Your task to perform on an android device: visit the assistant section in the google photos Image 0: 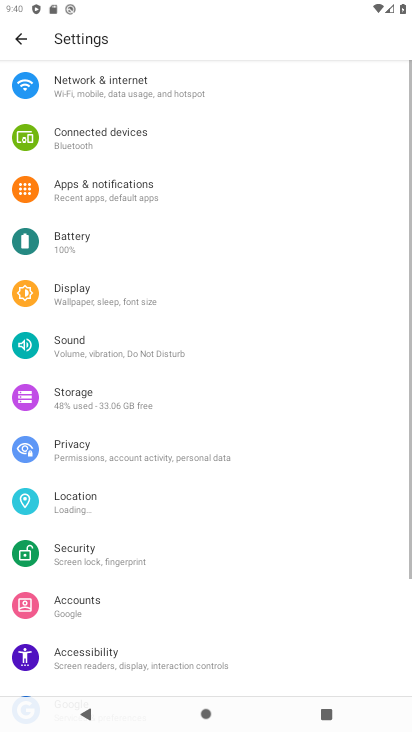
Step 0: press home button
Your task to perform on an android device: visit the assistant section in the google photos Image 1: 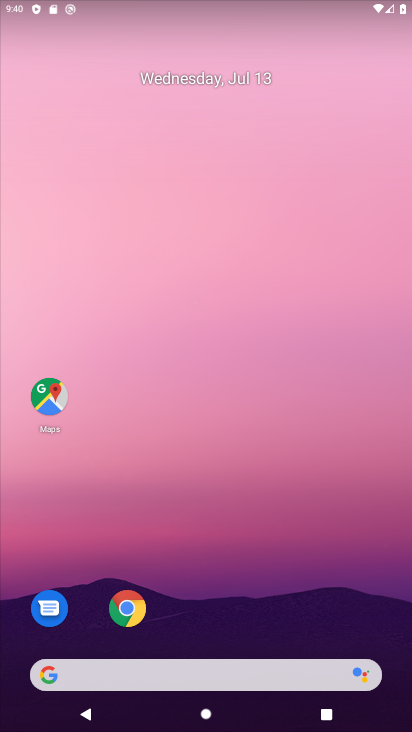
Step 1: drag from (210, 632) to (359, 2)
Your task to perform on an android device: visit the assistant section in the google photos Image 2: 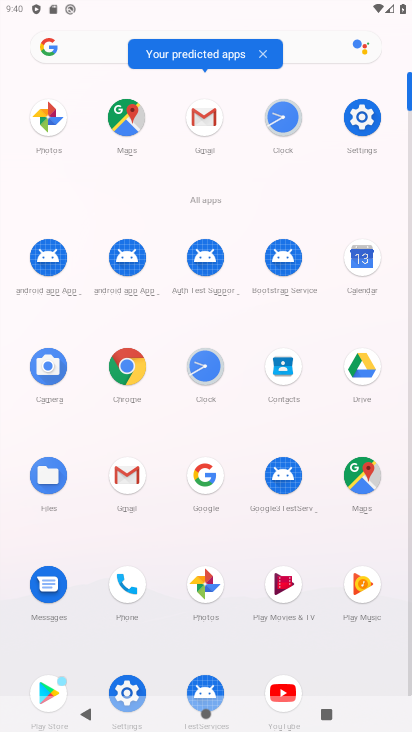
Step 2: click (202, 593)
Your task to perform on an android device: visit the assistant section in the google photos Image 3: 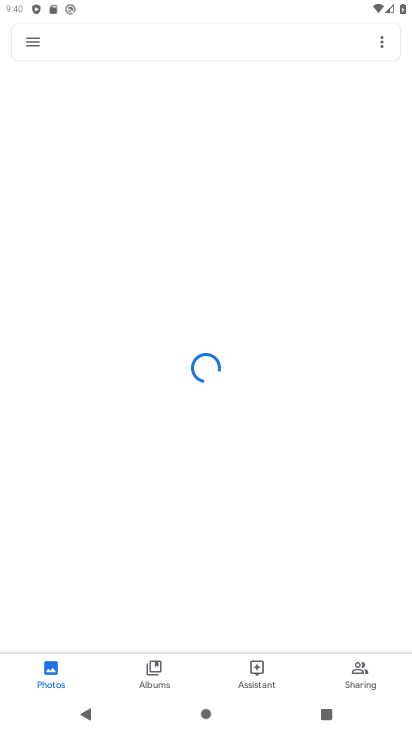
Step 3: click (259, 676)
Your task to perform on an android device: visit the assistant section in the google photos Image 4: 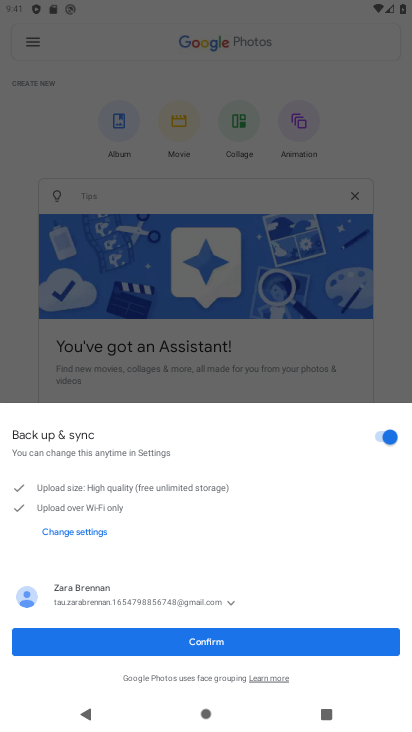
Step 4: click (229, 636)
Your task to perform on an android device: visit the assistant section in the google photos Image 5: 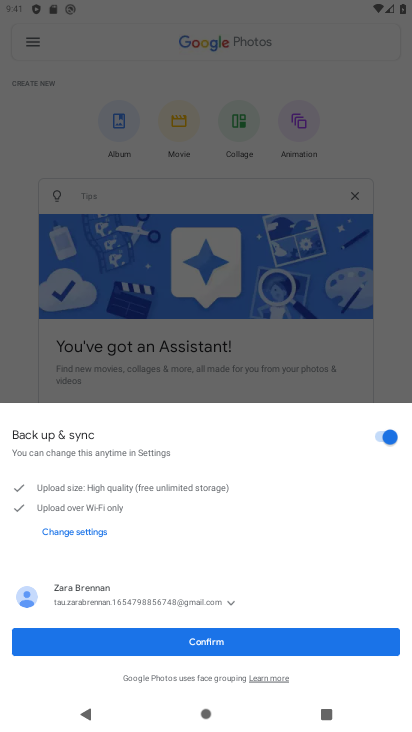
Step 5: click (229, 642)
Your task to perform on an android device: visit the assistant section in the google photos Image 6: 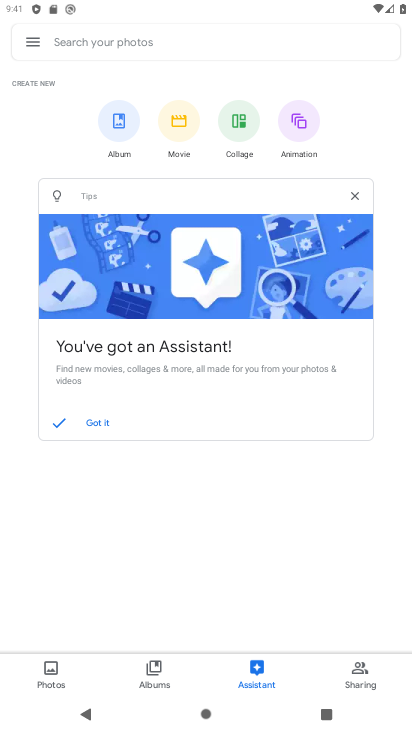
Step 6: task complete